Your task to perform on an android device: Go to network settings Image 0: 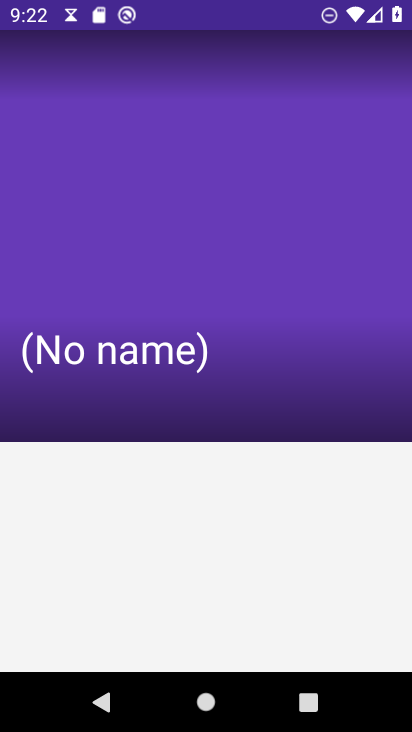
Step 0: drag from (211, 591) to (216, 352)
Your task to perform on an android device: Go to network settings Image 1: 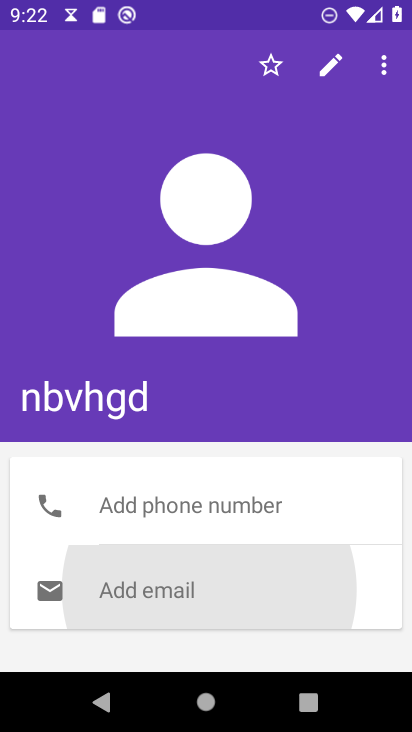
Step 1: click (240, 255)
Your task to perform on an android device: Go to network settings Image 2: 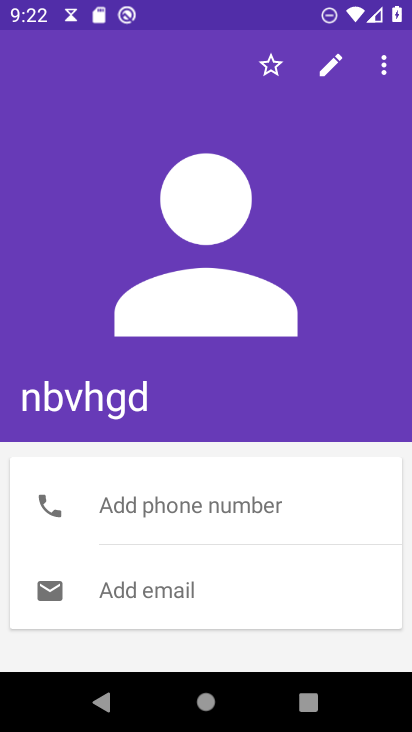
Step 2: press home button
Your task to perform on an android device: Go to network settings Image 3: 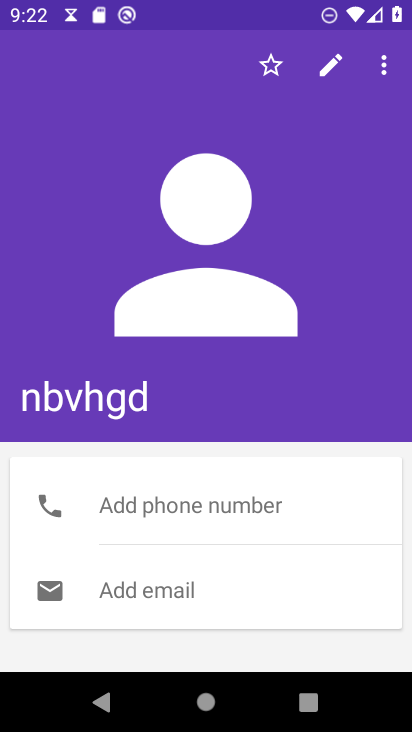
Step 3: press home button
Your task to perform on an android device: Go to network settings Image 4: 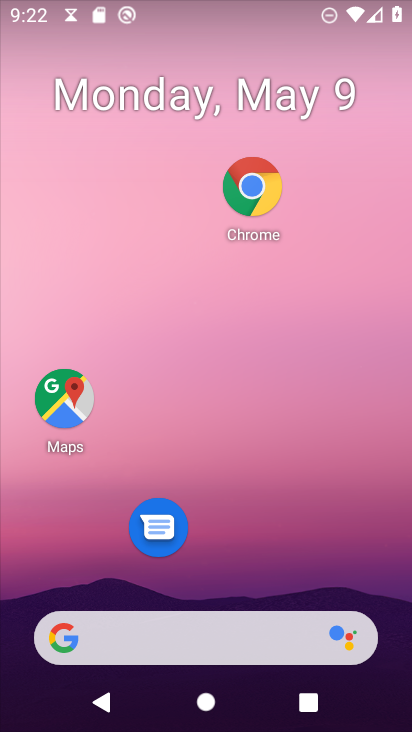
Step 4: drag from (210, 584) to (267, 284)
Your task to perform on an android device: Go to network settings Image 5: 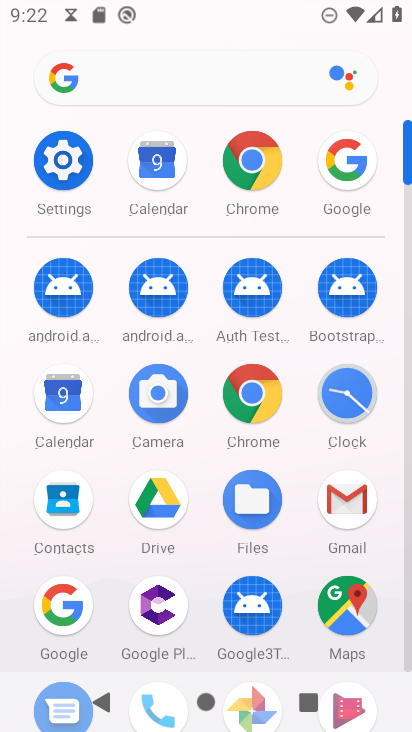
Step 5: click (64, 157)
Your task to perform on an android device: Go to network settings Image 6: 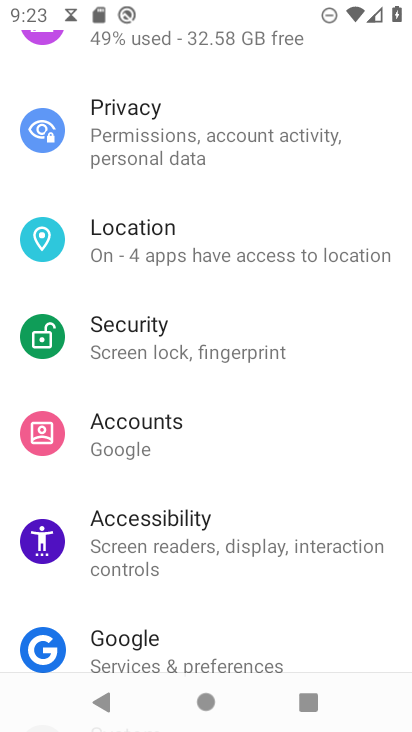
Step 6: drag from (176, 105) to (185, 730)
Your task to perform on an android device: Go to network settings Image 7: 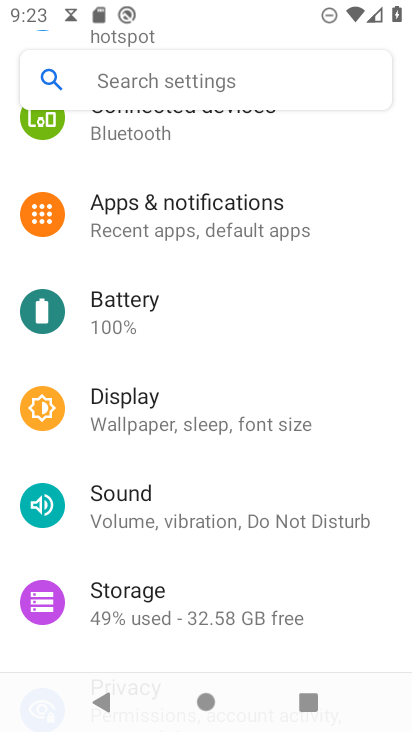
Step 7: drag from (166, 194) to (228, 730)
Your task to perform on an android device: Go to network settings Image 8: 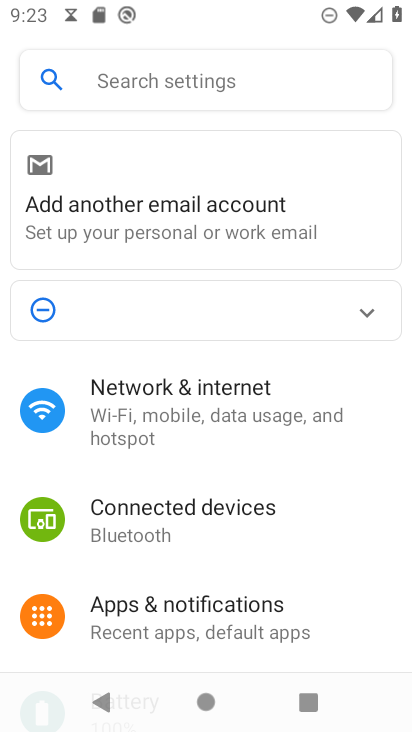
Step 8: click (208, 433)
Your task to perform on an android device: Go to network settings Image 9: 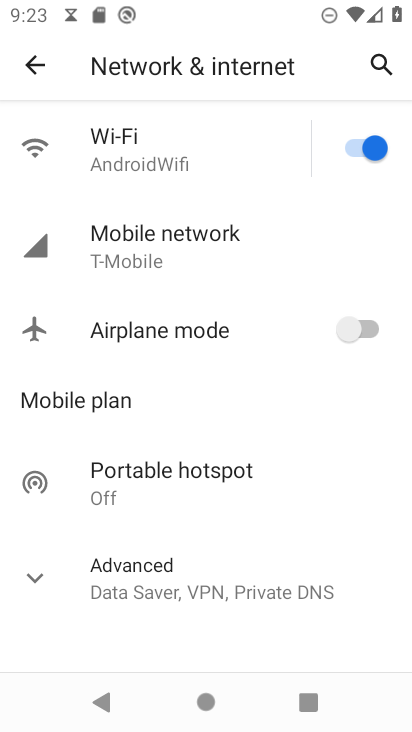
Step 9: click (34, 578)
Your task to perform on an android device: Go to network settings Image 10: 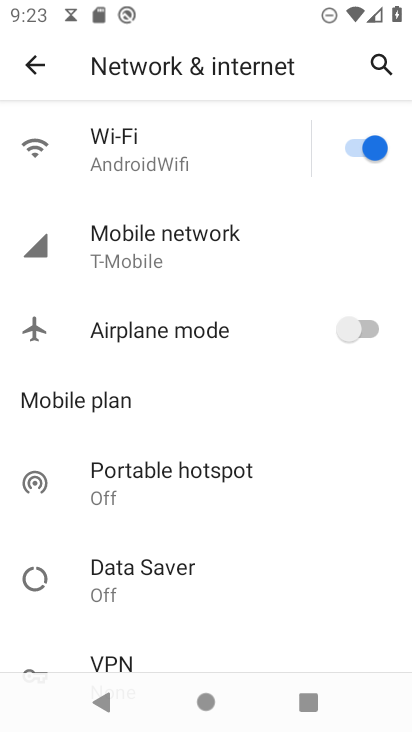
Step 10: task complete